Your task to perform on an android device: turn off translation in the chrome app Image 0: 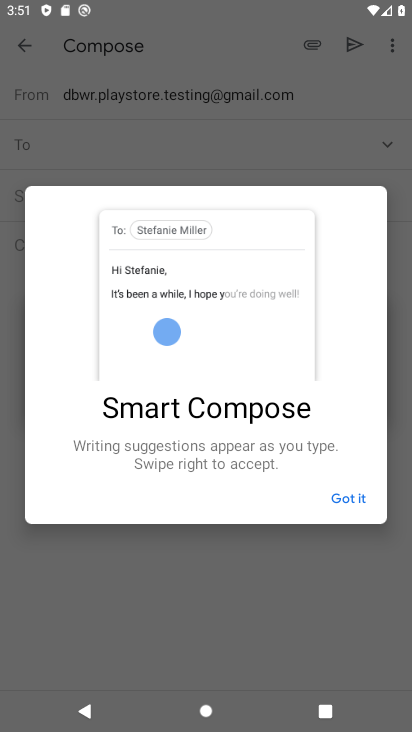
Step 0: press home button
Your task to perform on an android device: turn off translation in the chrome app Image 1: 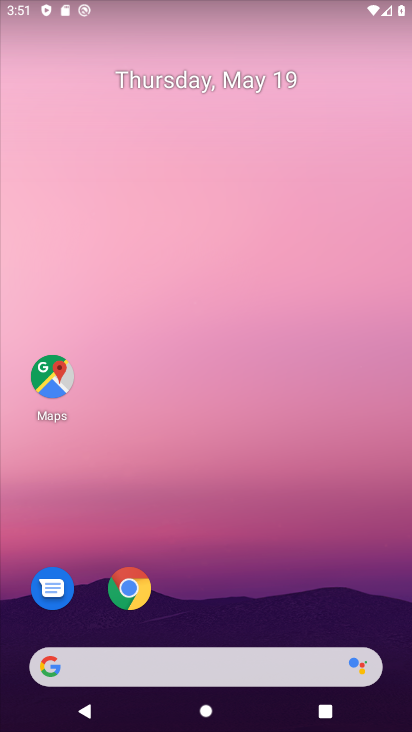
Step 1: click (131, 592)
Your task to perform on an android device: turn off translation in the chrome app Image 2: 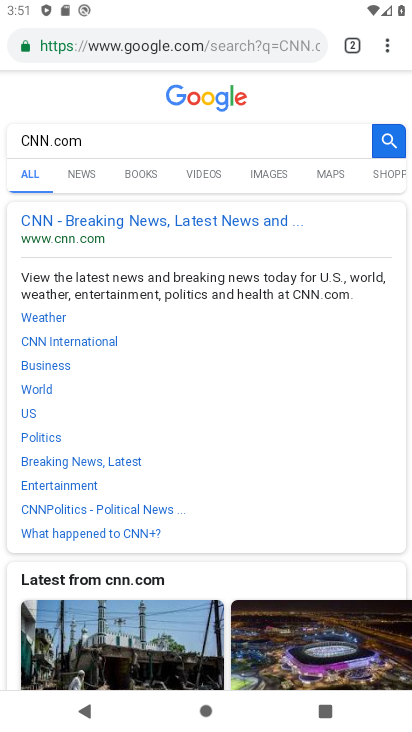
Step 2: click (390, 49)
Your task to perform on an android device: turn off translation in the chrome app Image 3: 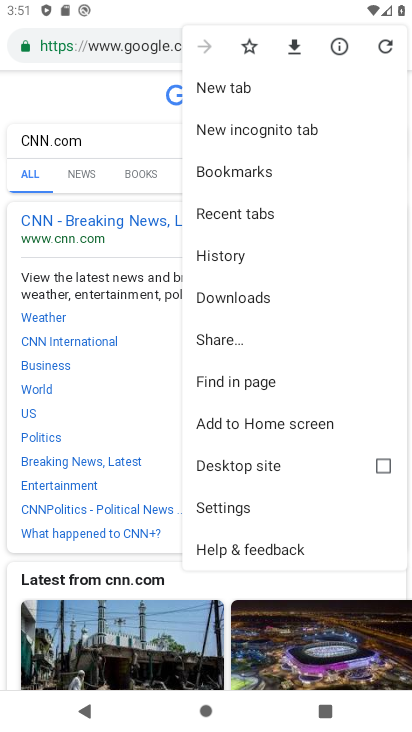
Step 3: click (236, 506)
Your task to perform on an android device: turn off translation in the chrome app Image 4: 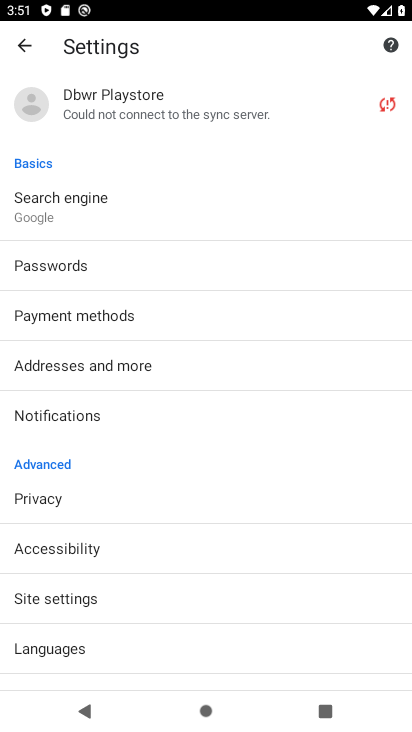
Step 4: drag from (89, 606) to (112, 469)
Your task to perform on an android device: turn off translation in the chrome app Image 5: 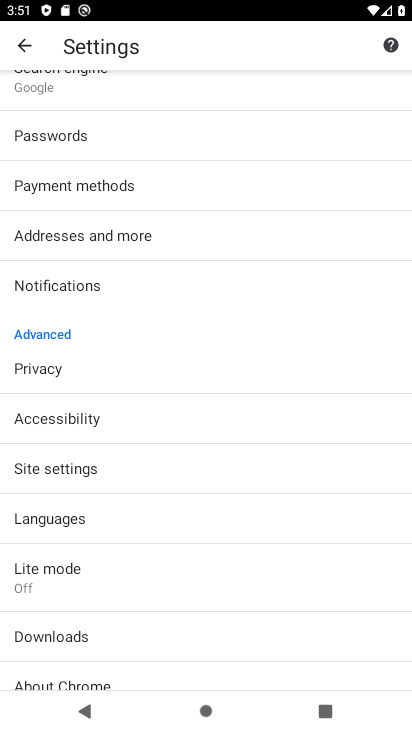
Step 5: click (76, 517)
Your task to perform on an android device: turn off translation in the chrome app Image 6: 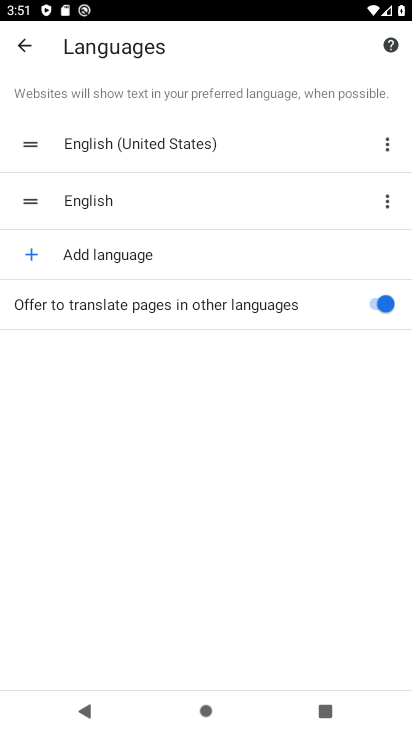
Step 6: click (351, 310)
Your task to perform on an android device: turn off translation in the chrome app Image 7: 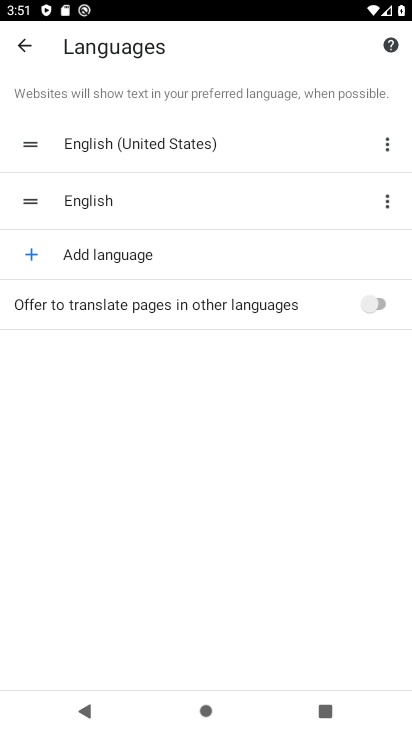
Step 7: task complete